Your task to perform on an android device: turn off airplane mode Image 0: 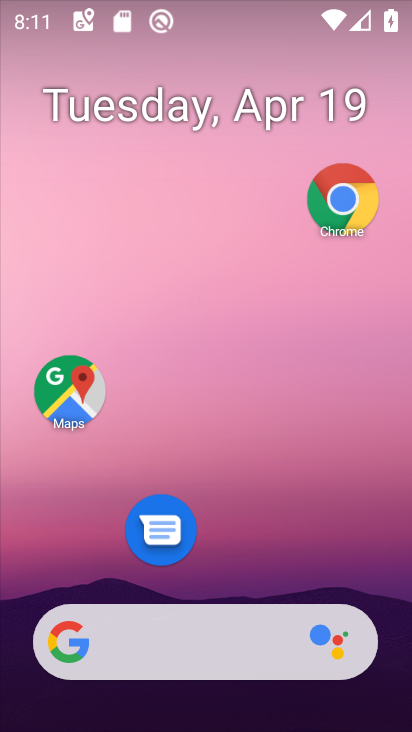
Step 0: drag from (195, 575) to (273, 151)
Your task to perform on an android device: turn off airplane mode Image 1: 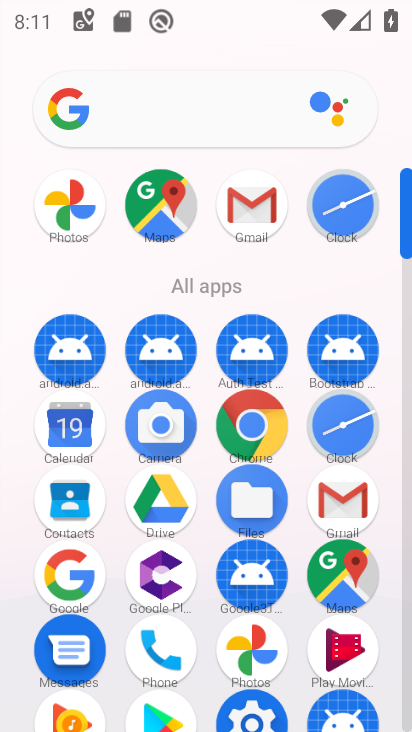
Step 1: click (269, 719)
Your task to perform on an android device: turn off airplane mode Image 2: 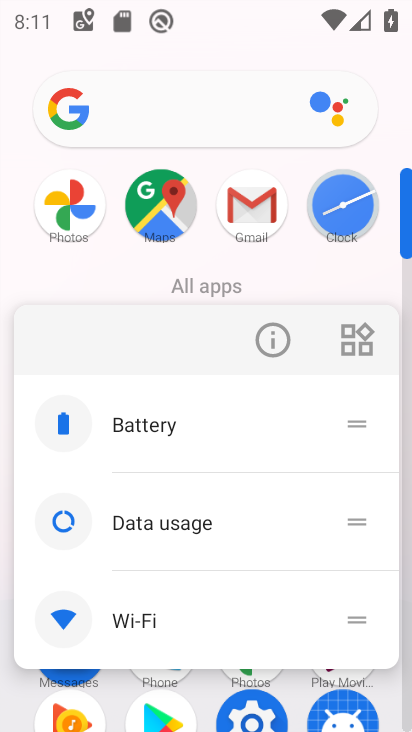
Step 2: click (272, 354)
Your task to perform on an android device: turn off airplane mode Image 3: 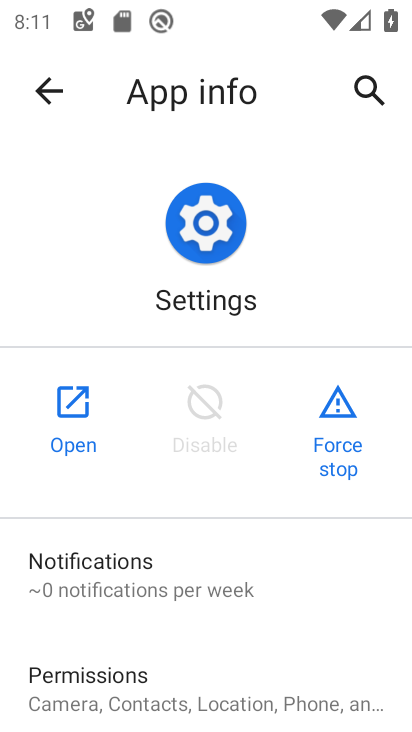
Step 3: click (89, 419)
Your task to perform on an android device: turn off airplane mode Image 4: 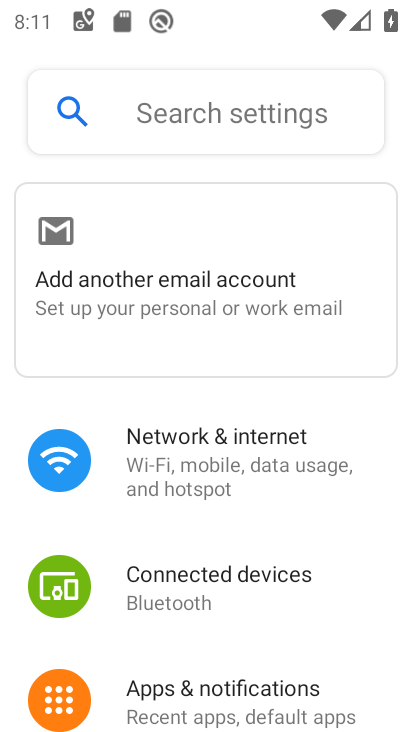
Step 4: click (244, 437)
Your task to perform on an android device: turn off airplane mode Image 5: 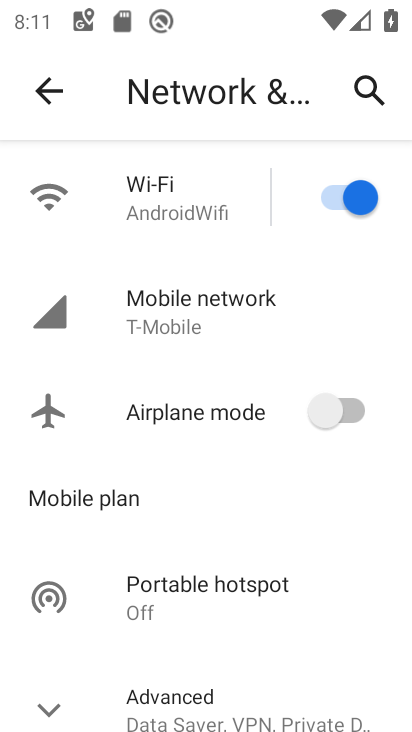
Step 5: task complete